Your task to perform on an android device: toggle location history Image 0: 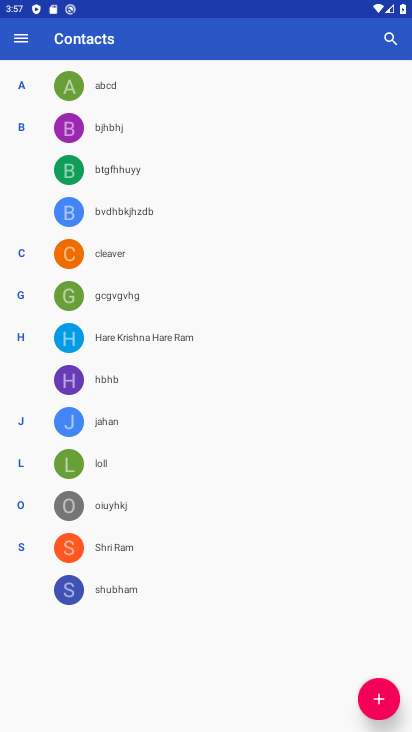
Step 0: press home button
Your task to perform on an android device: toggle location history Image 1: 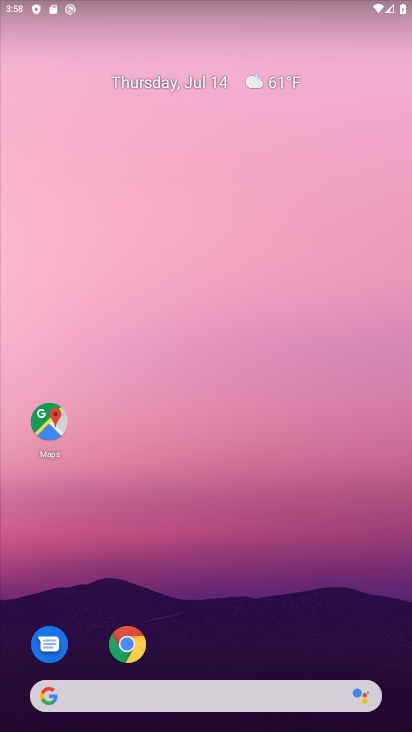
Step 1: click (56, 406)
Your task to perform on an android device: toggle location history Image 2: 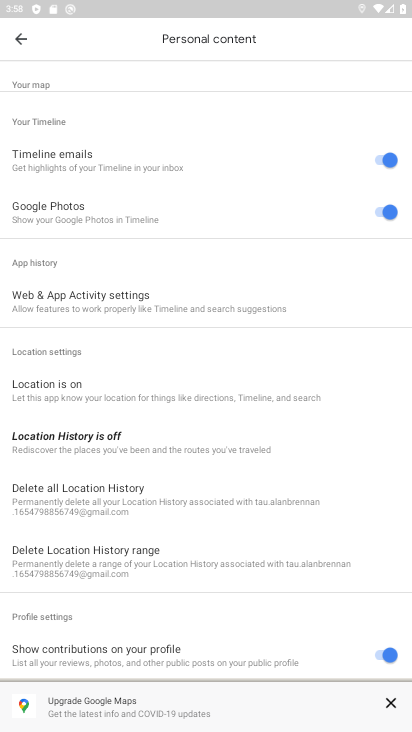
Step 2: click (13, 40)
Your task to perform on an android device: toggle location history Image 3: 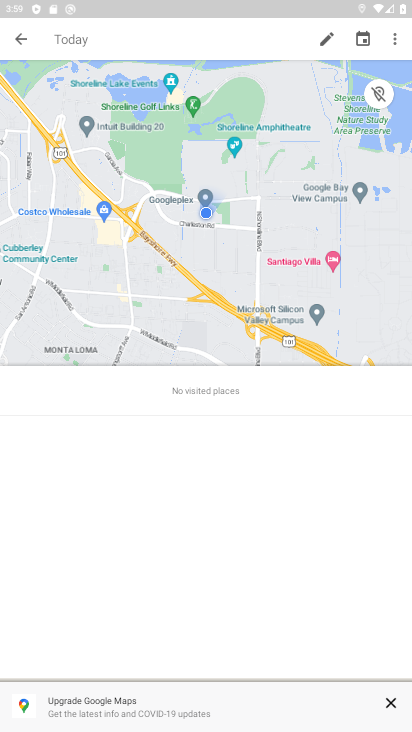
Step 3: click (395, 29)
Your task to perform on an android device: toggle location history Image 4: 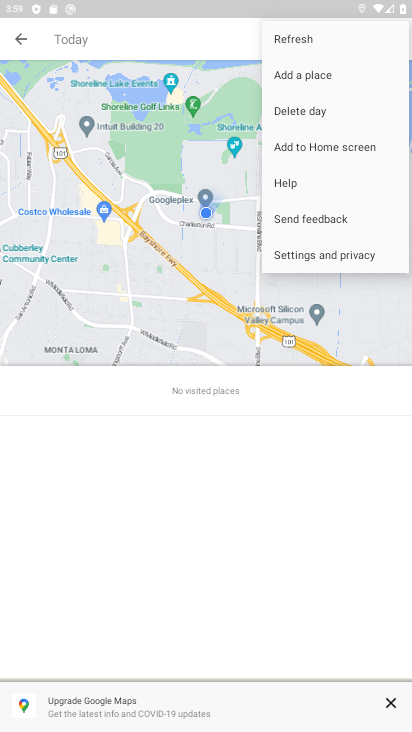
Step 4: click (316, 251)
Your task to perform on an android device: toggle location history Image 5: 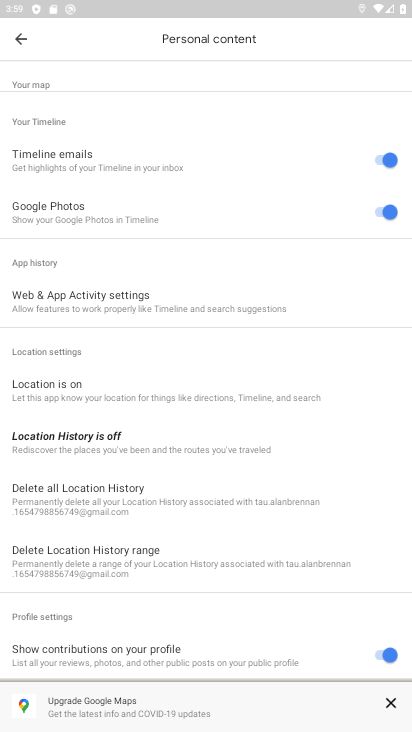
Step 5: click (190, 431)
Your task to perform on an android device: toggle location history Image 6: 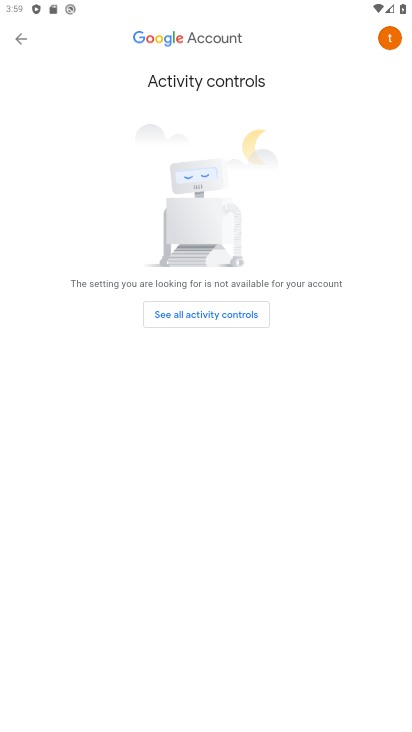
Step 6: click (238, 322)
Your task to perform on an android device: toggle location history Image 7: 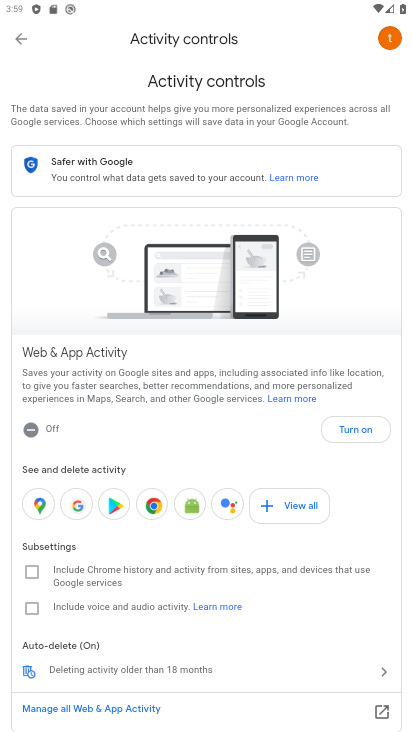
Step 7: click (344, 426)
Your task to perform on an android device: toggle location history Image 8: 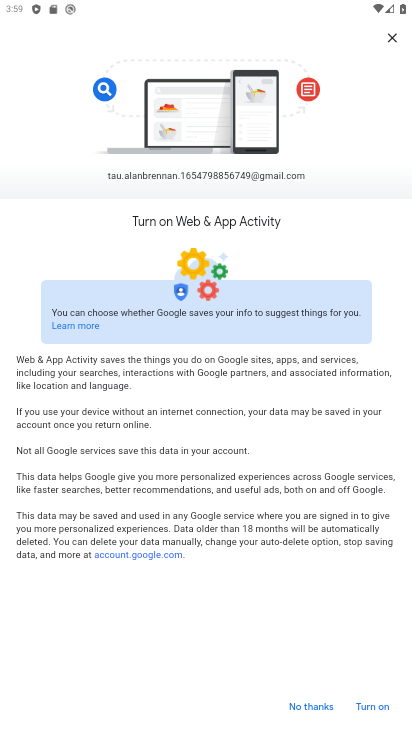
Step 8: click (374, 701)
Your task to perform on an android device: toggle location history Image 9: 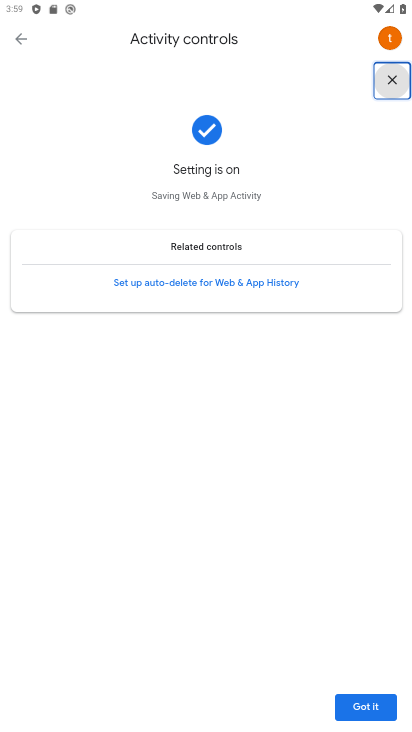
Step 9: click (367, 705)
Your task to perform on an android device: toggle location history Image 10: 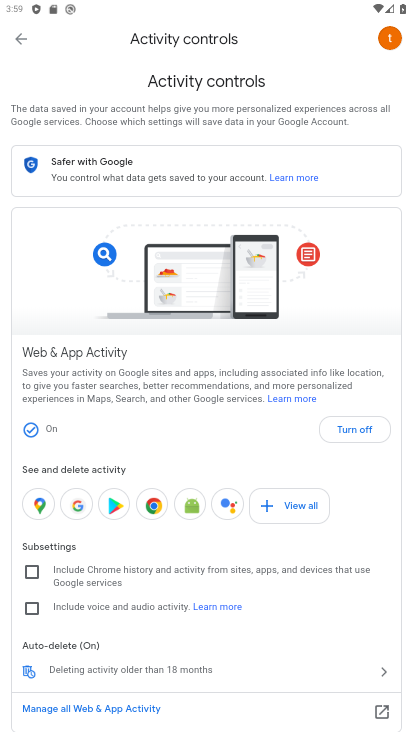
Step 10: task complete